Your task to perform on an android device: turn on location history Image 0: 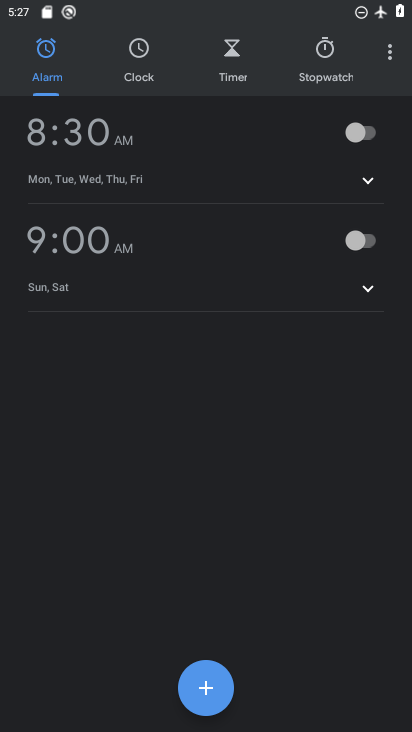
Step 0: press home button
Your task to perform on an android device: turn on location history Image 1: 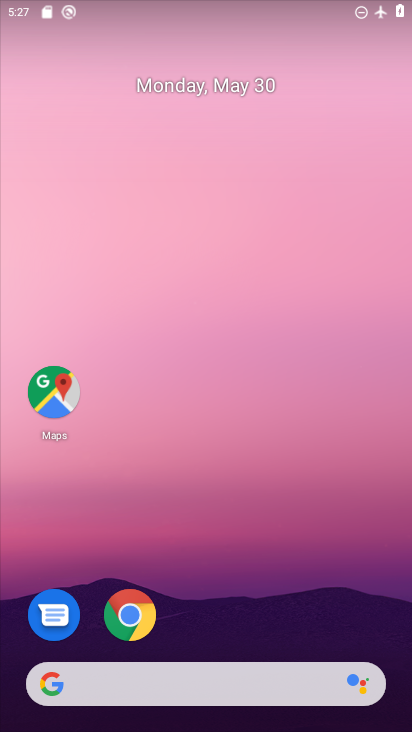
Step 1: drag from (216, 615) to (269, 69)
Your task to perform on an android device: turn on location history Image 2: 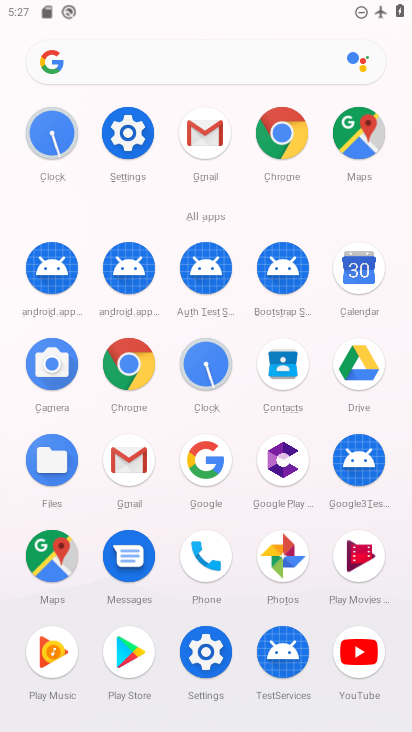
Step 2: click (136, 131)
Your task to perform on an android device: turn on location history Image 3: 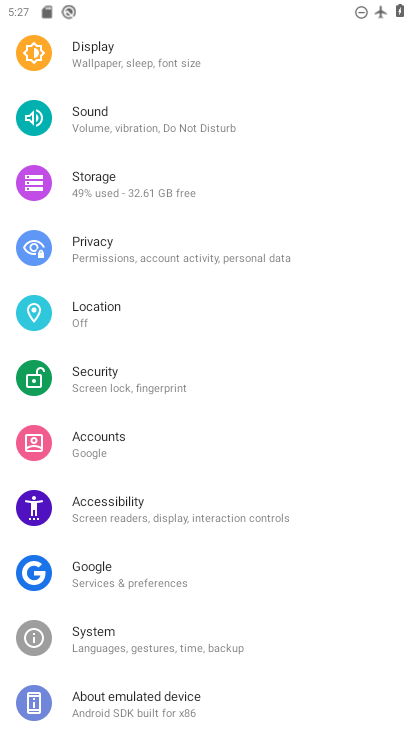
Step 3: click (131, 331)
Your task to perform on an android device: turn on location history Image 4: 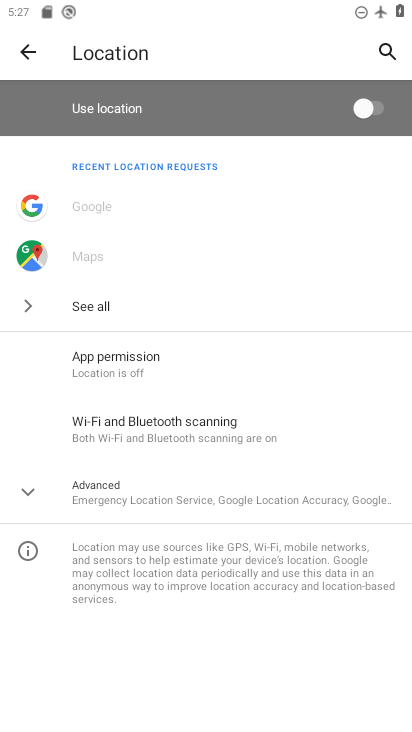
Step 4: click (148, 505)
Your task to perform on an android device: turn on location history Image 5: 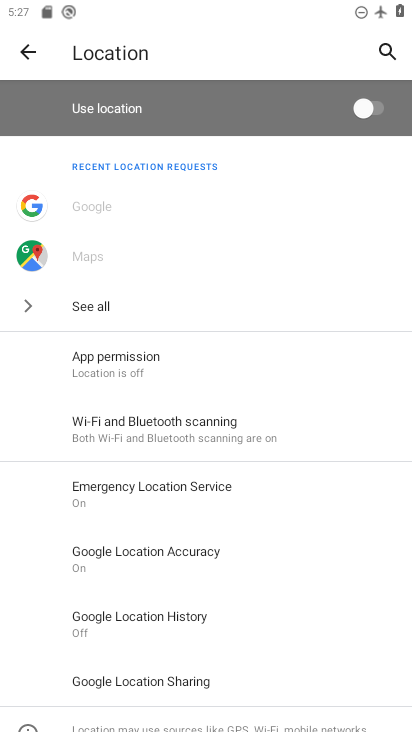
Step 5: click (143, 621)
Your task to perform on an android device: turn on location history Image 6: 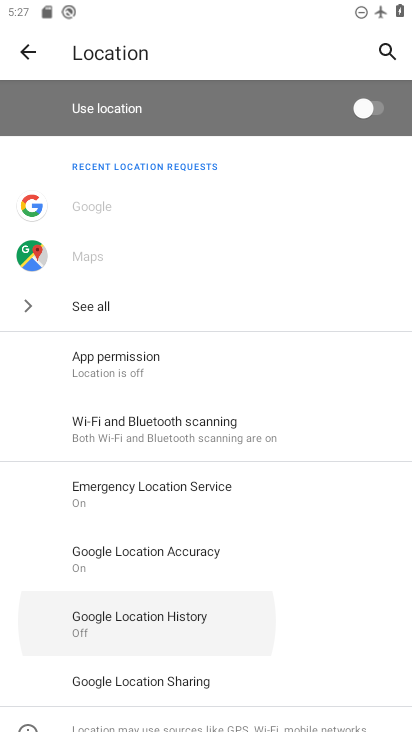
Step 6: click (143, 621)
Your task to perform on an android device: turn on location history Image 7: 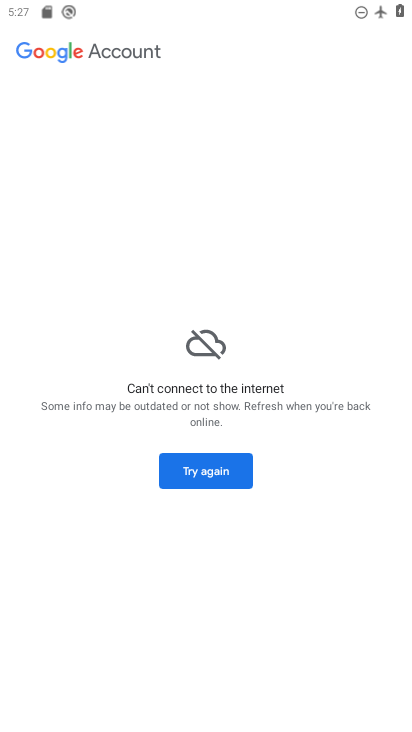
Step 7: drag from (254, 16) to (143, 726)
Your task to perform on an android device: turn on location history Image 8: 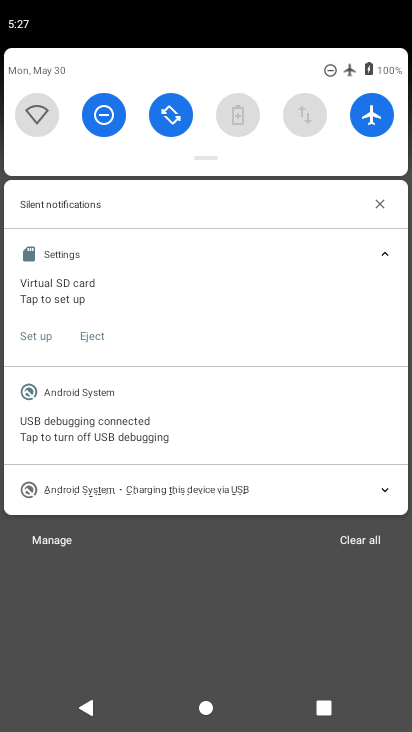
Step 8: click (366, 118)
Your task to perform on an android device: turn on location history Image 9: 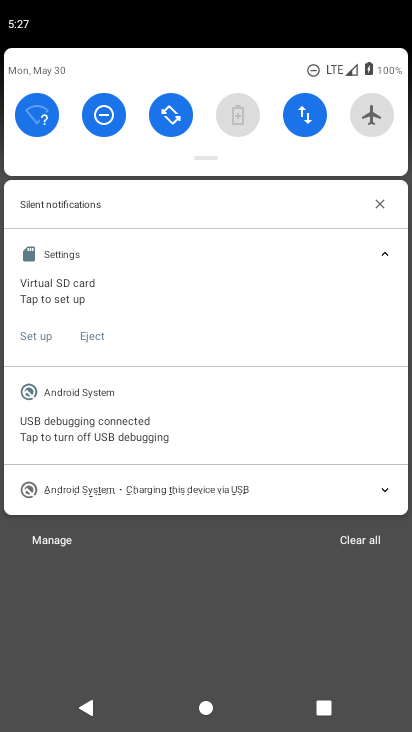
Step 9: task complete